Your task to perform on an android device: Go to Google maps Image 0: 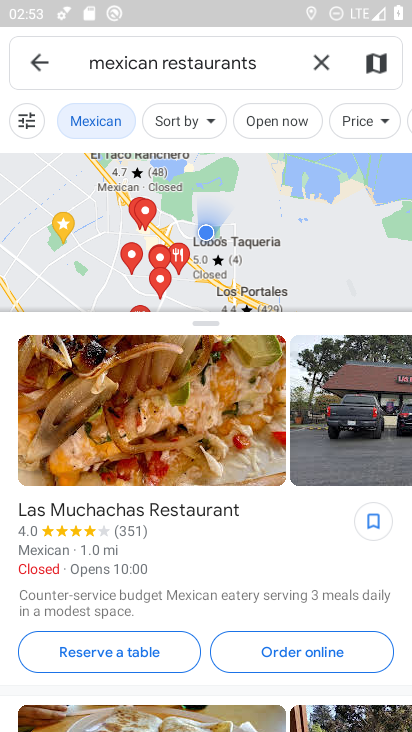
Step 0: task complete